Your task to perform on an android device: turn off javascript in the chrome app Image 0: 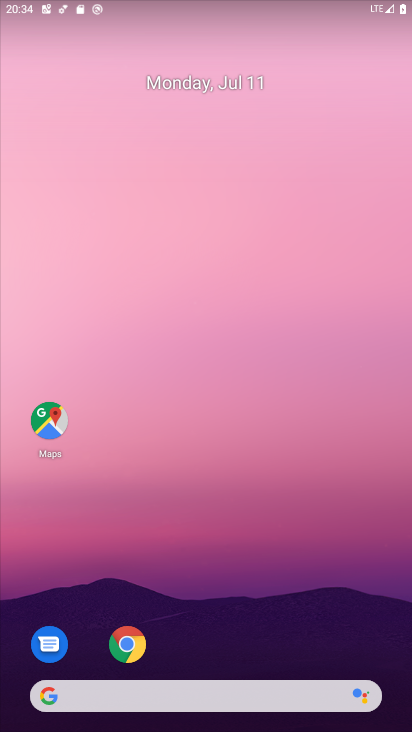
Step 0: drag from (231, 644) to (193, 112)
Your task to perform on an android device: turn off javascript in the chrome app Image 1: 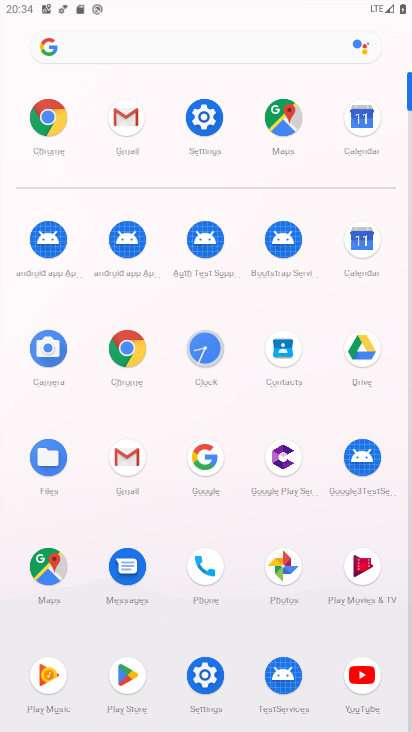
Step 1: click (132, 350)
Your task to perform on an android device: turn off javascript in the chrome app Image 2: 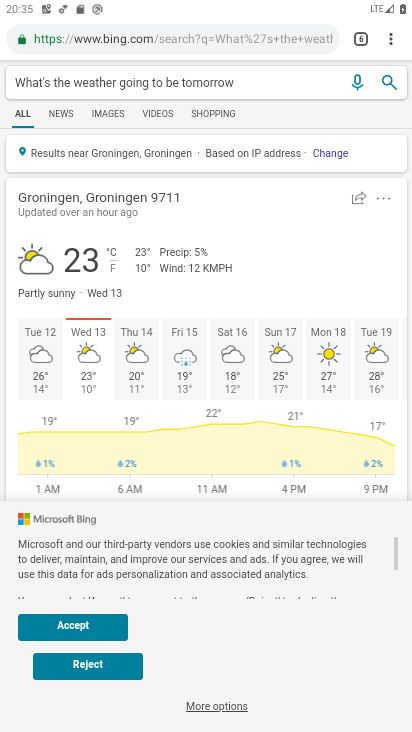
Step 2: click (386, 37)
Your task to perform on an android device: turn off javascript in the chrome app Image 3: 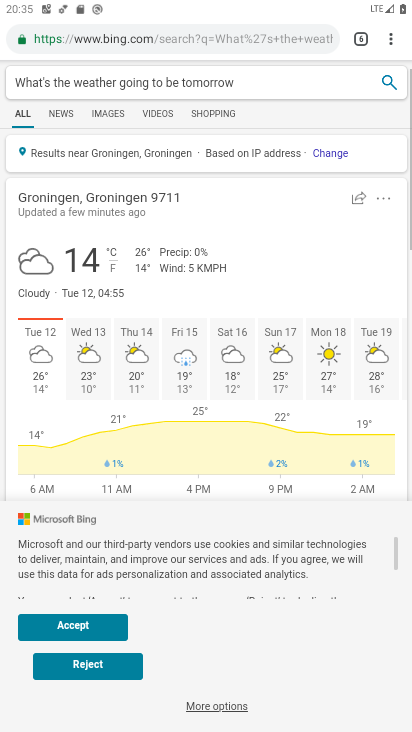
Step 3: click (395, 30)
Your task to perform on an android device: turn off javascript in the chrome app Image 4: 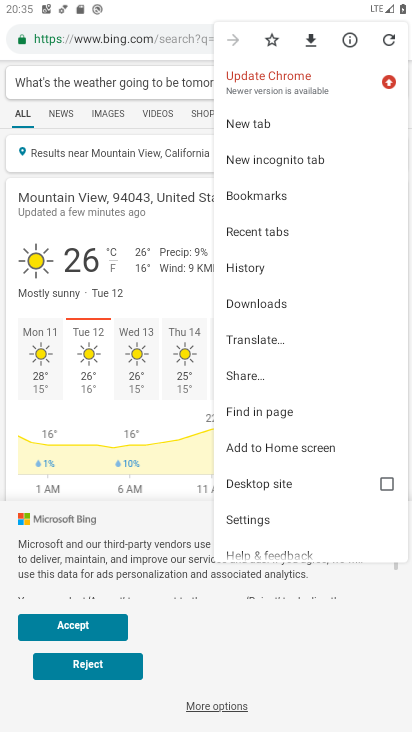
Step 4: click (273, 522)
Your task to perform on an android device: turn off javascript in the chrome app Image 5: 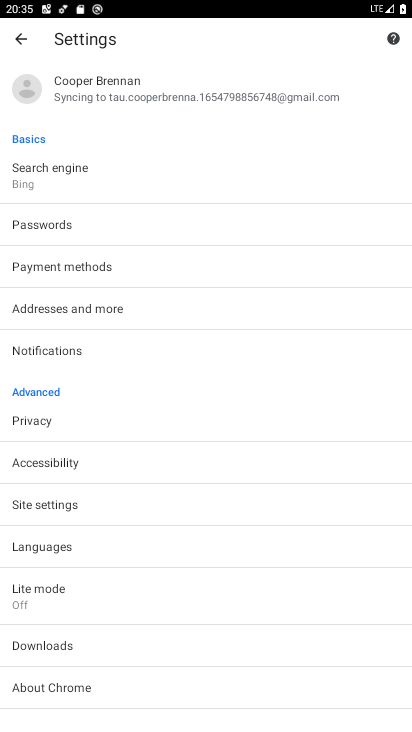
Step 5: click (87, 504)
Your task to perform on an android device: turn off javascript in the chrome app Image 6: 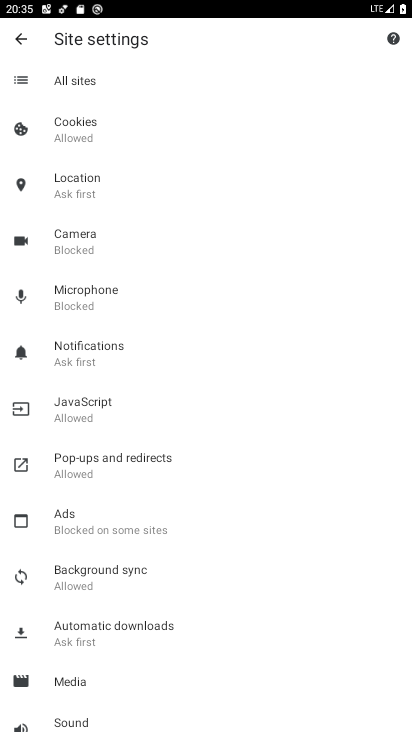
Step 6: click (85, 400)
Your task to perform on an android device: turn off javascript in the chrome app Image 7: 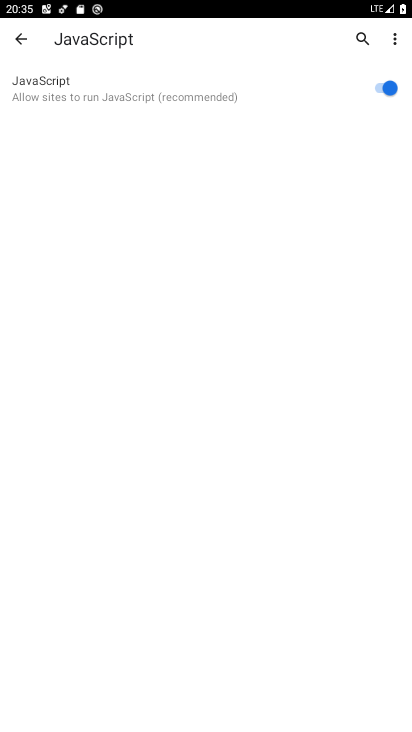
Step 7: click (380, 87)
Your task to perform on an android device: turn off javascript in the chrome app Image 8: 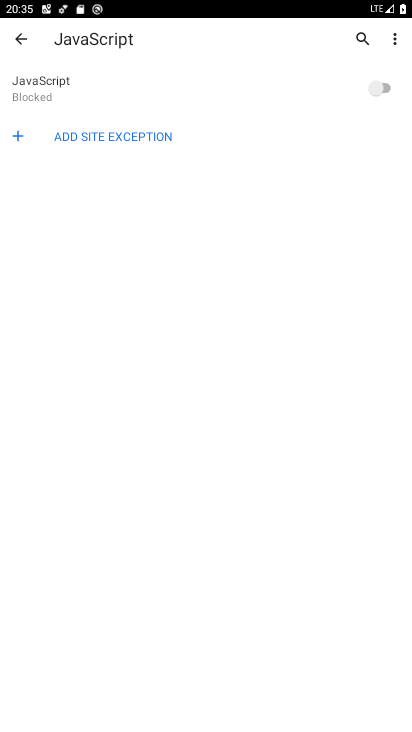
Step 8: task complete